Your task to perform on an android device: Go to notification settings Image 0: 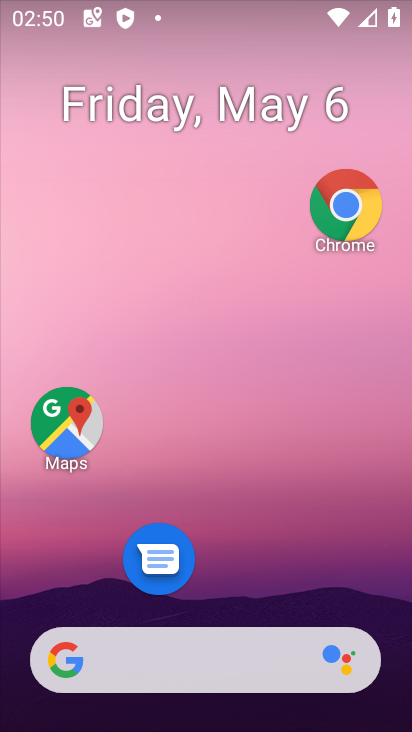
Step 0: drag from (184, 665) to (307, 61)
Your task to perform on an android device: Go to notification settings Image 1: 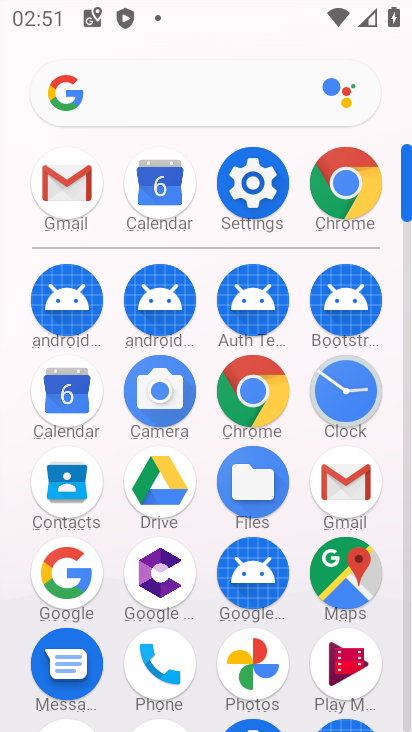
Step 1: click (257, 199)
Your task to perform on an android device: Go to notification settings Image 2: 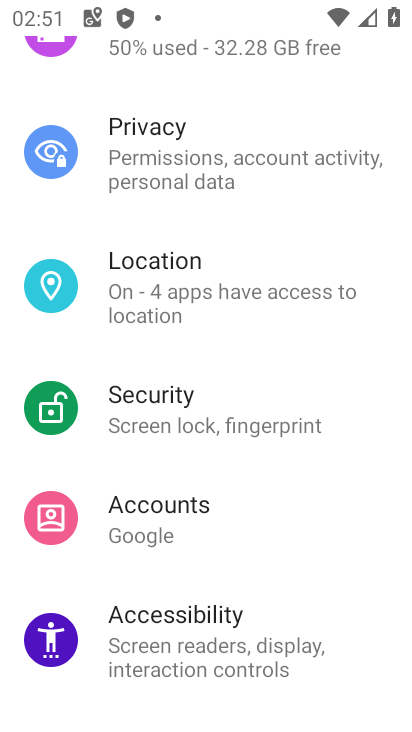
Step 2: drag from (263, 110) to (186, 583)
Your task to perform on an android device: Go to notification settings Image 3: 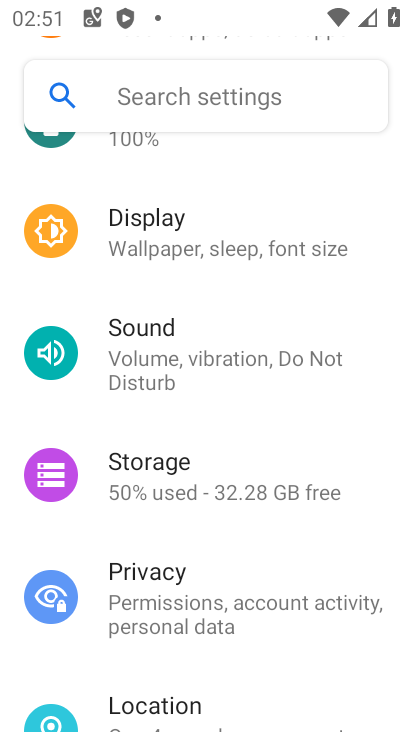
Step 3: drag from (302, 195) to (226, 641)
Your task to perform on an android device: Go to notification settings Image 4: 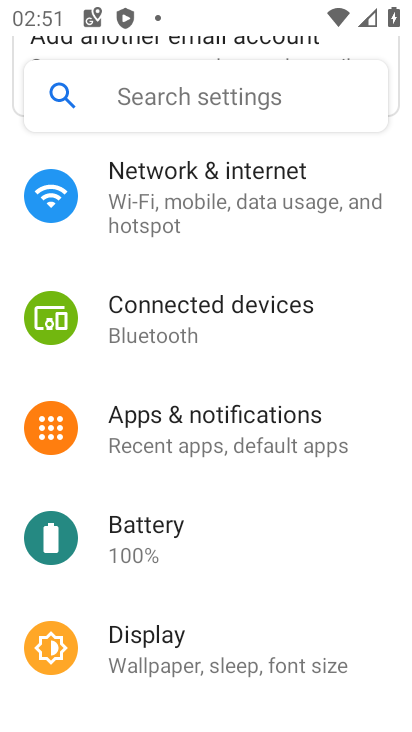
Step 4: click (262, 425)
Your task to perform on an android device: Go to notification settings Image 5: 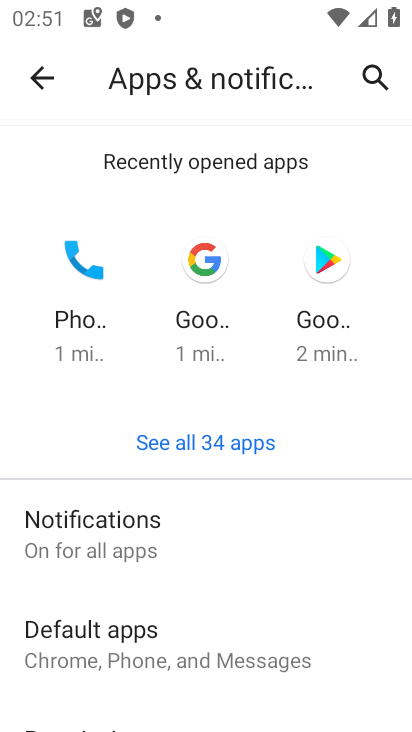
Step 5: click (146, 529)
Your task to perform on an android device: Go to notification settings Image 6: 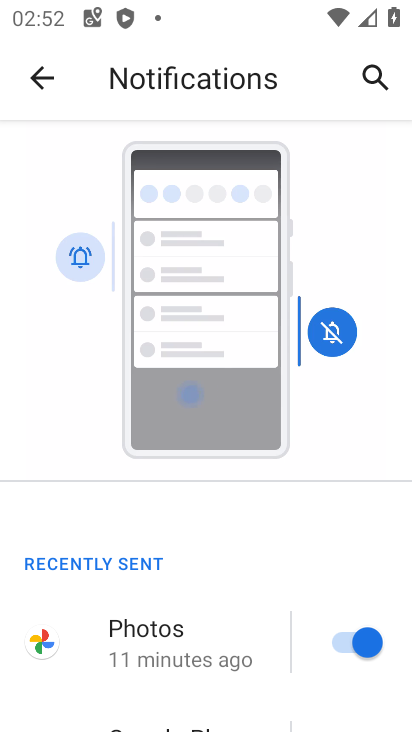
Step 6: task complete